Your task to perform on an android device: Open wifi settings Image 0: 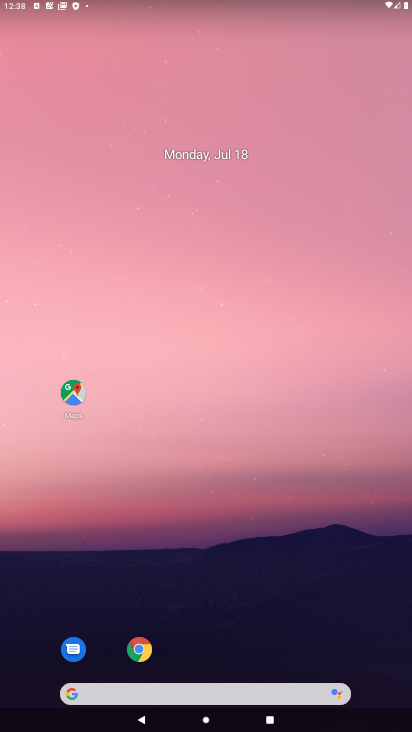
Step 0: drag from (375, 661) to (315, 96)
Your task to perform on an android device: Open wifi settings Image 1: 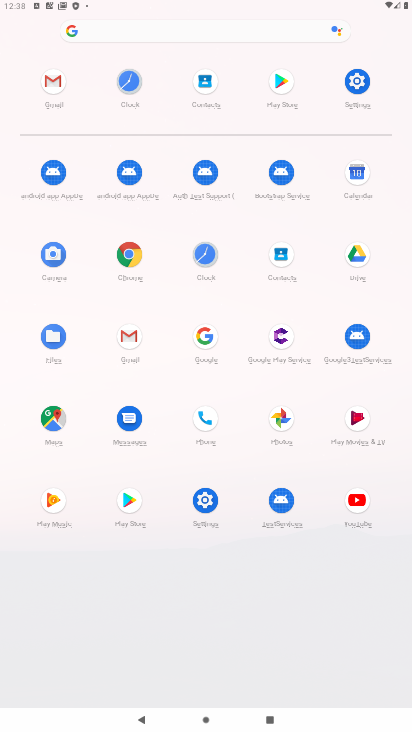
Step 1: click (203, 503)
Your task to perform on an android device: Open wifi settings Image 2: 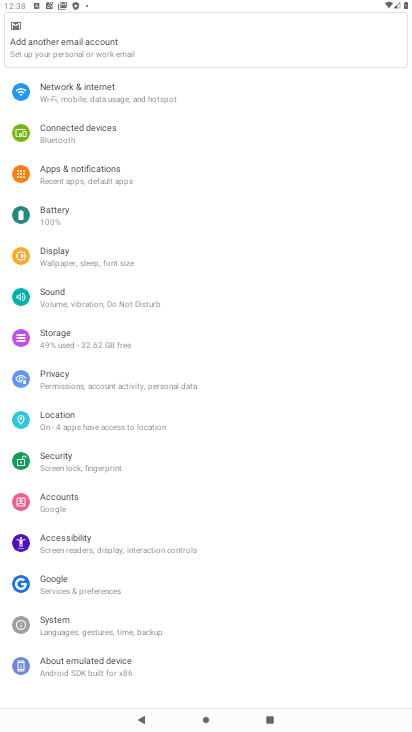
Step 2: click (62, 89)
Your task to perform on an android device: Open wifi settings Image 3: 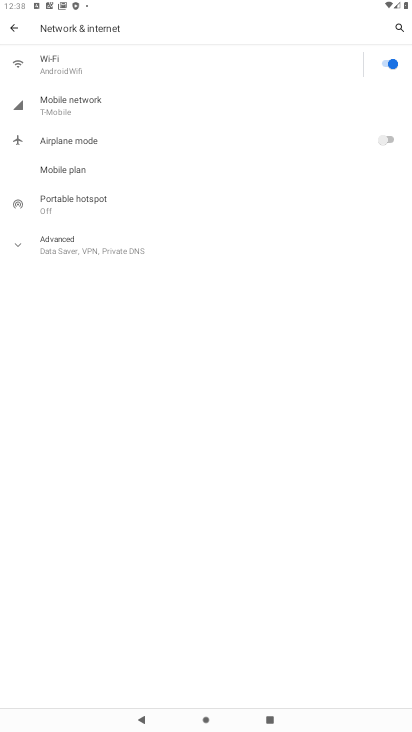
Step 3: click (51, 68)
Your task to perform on an android device: Open wifi settings Image 4: 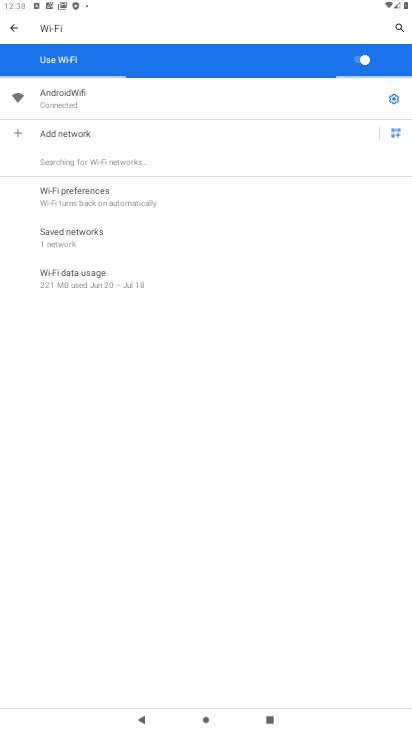
Step 4: task complete